Your task to perform on an android device: Do I have any events today? Image 0: 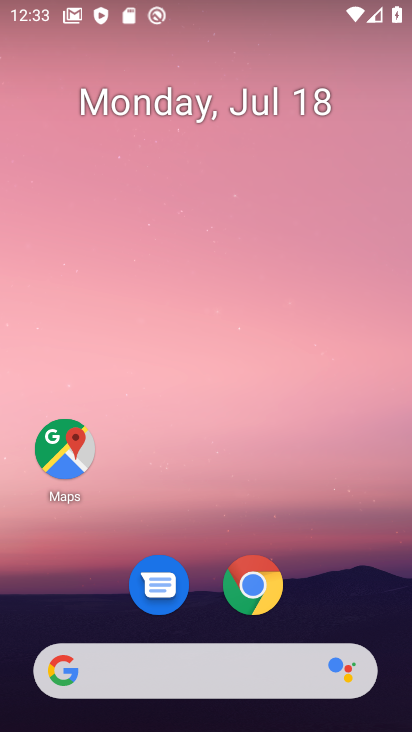
Step 0: drag from (217, 647) to (354, 173)
Your task to perform on an android device: Do I have any events today? Image 1: 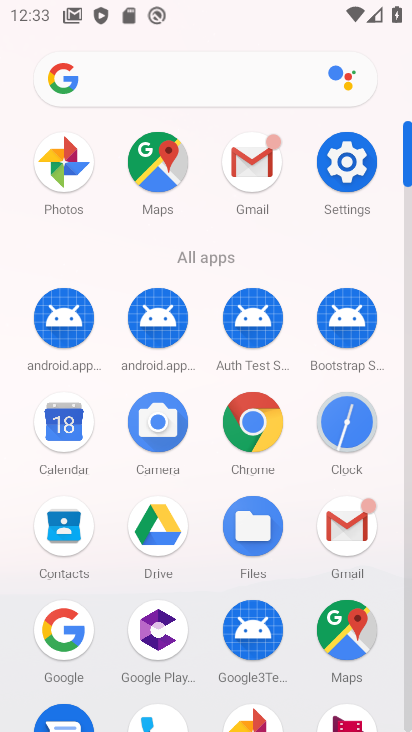
Step 1: click (66, 427)
Your task to perform on an android device: Do I have any events today? Image 2: 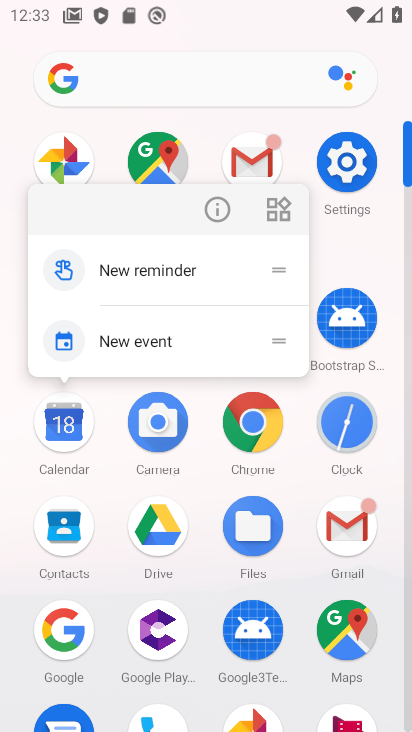
Step 2: click (75, 419)
Your task to perform on an android device: Do I have any events today? Image 3: 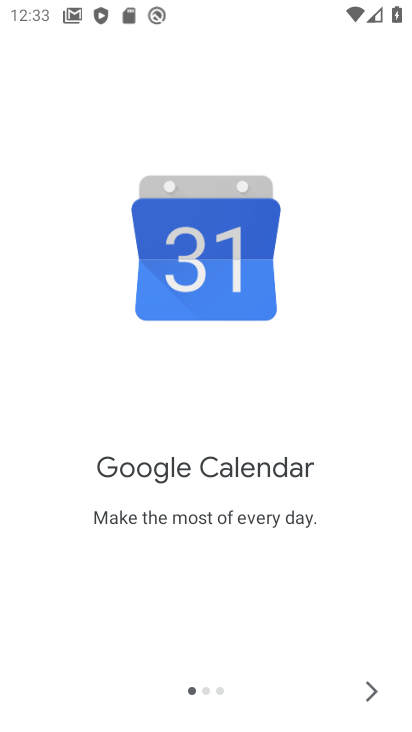
Step 3: click (371, 690)
Your task to perform on an android device: Do I have any events today? Image 4: 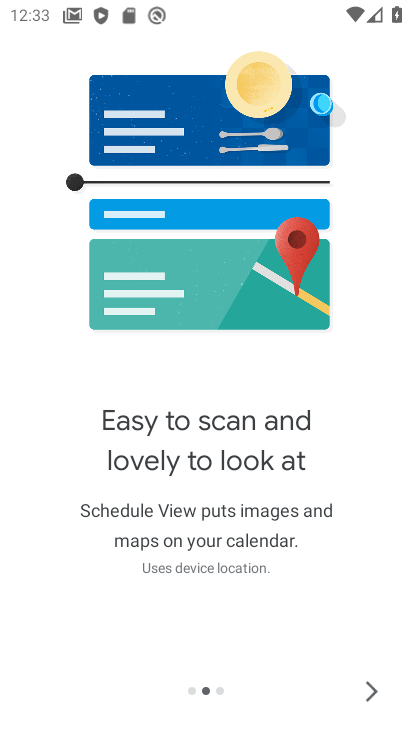
Step 4: click (371, 690)
Your task to perform on an android device: Do I have any events today? Image 5: 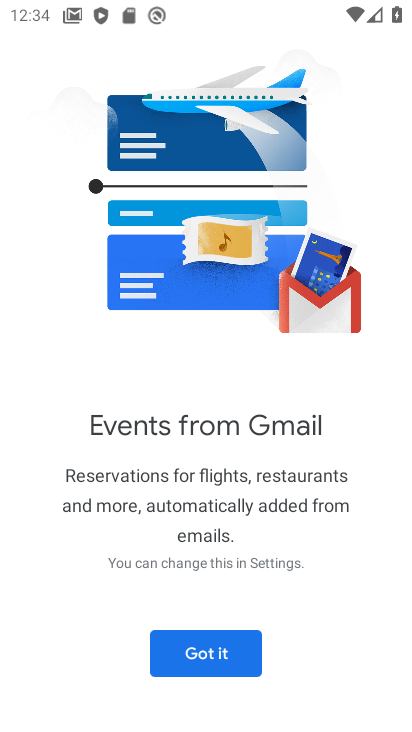
Step 5: click (215, 658)
Your task to perform on an android device: Do I have any events today? Image 6: 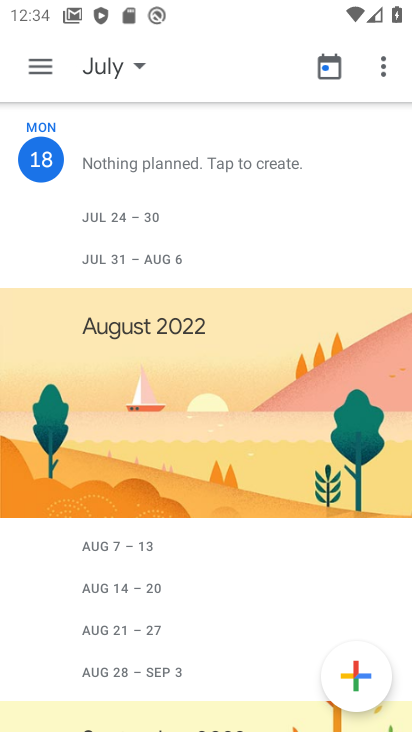
Step 6: task complete